Your task to perform on an android device: What's the weather? Image 0: 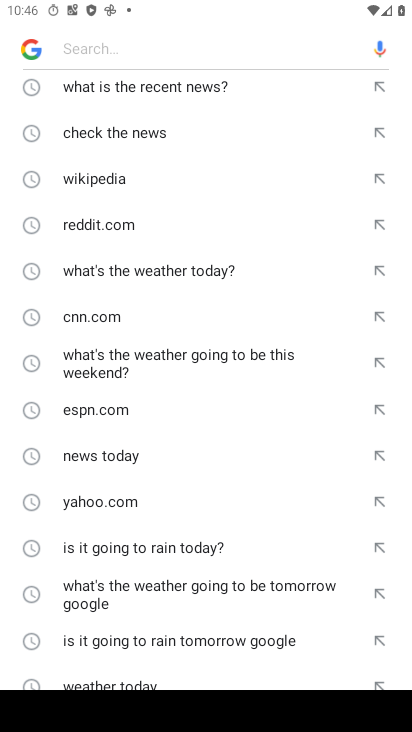
Step 0: press home button
Your task to perform on an android device: What's the weather? Image 1: 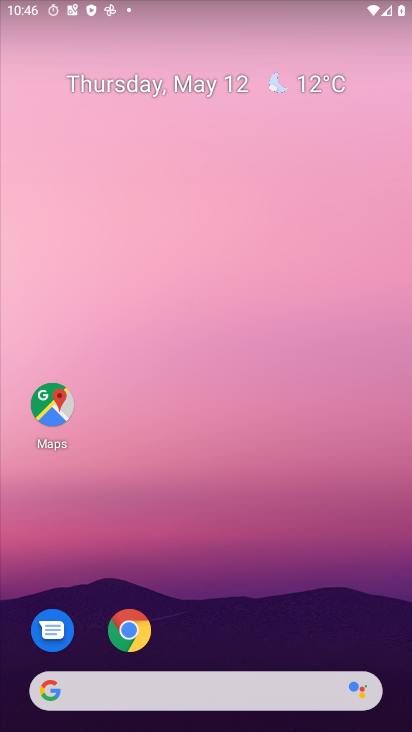
Step 1: click (322, 82)
Your task to perform on an android device: What's the weather? Image 2: 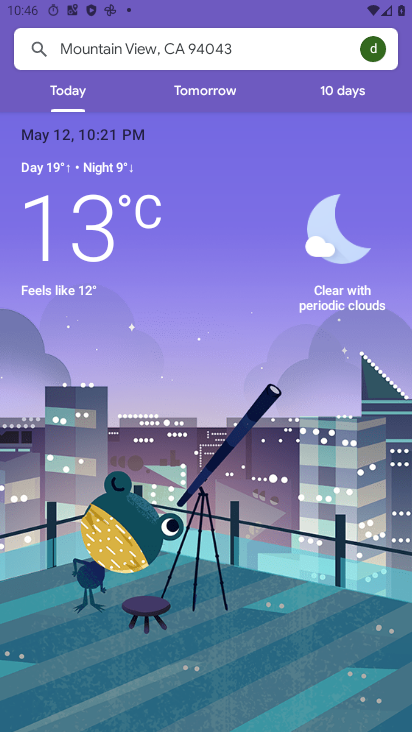
Step 2: task complete